Your task to perform on an android device: Open calendar and show me the third week of next month Image 0: 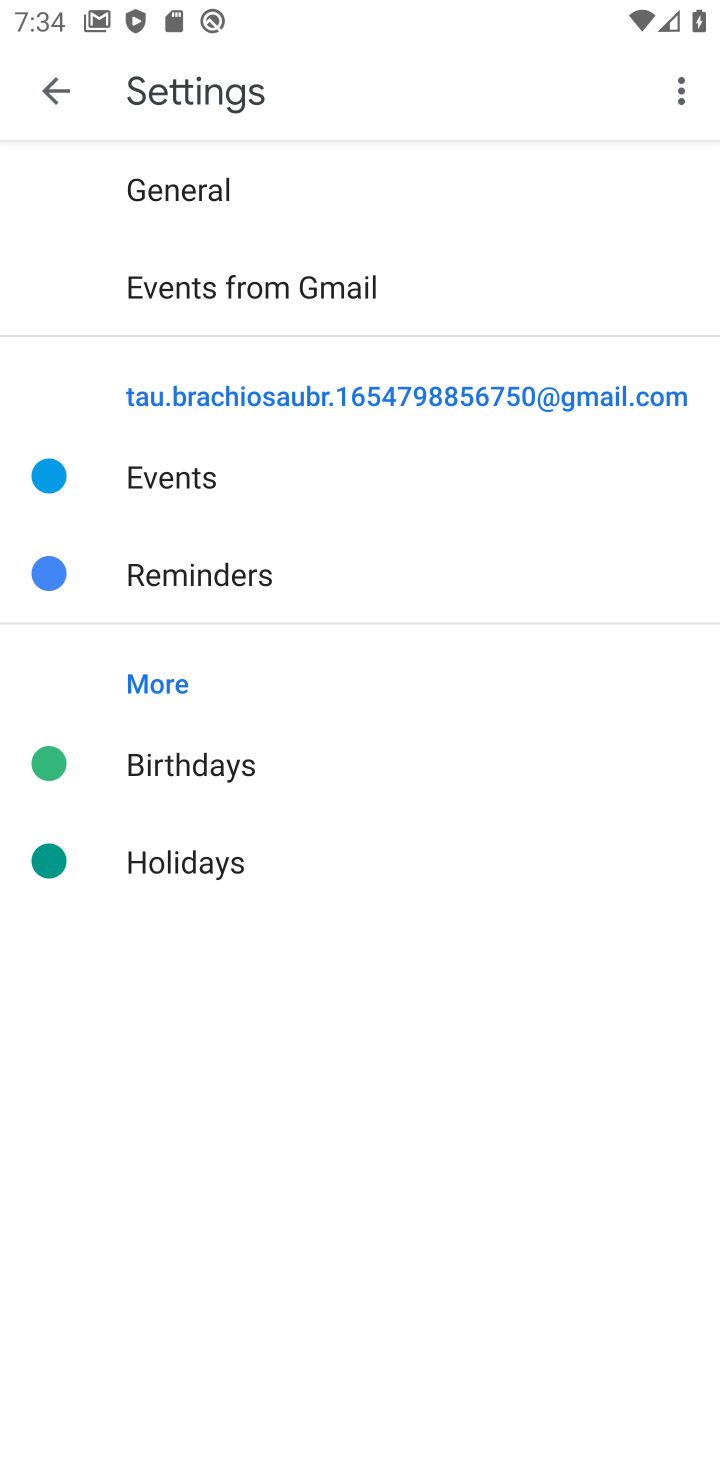
Step 0: press home button
Your task to perform on an android device: Open calendar and show me the third week of next month Image 1: 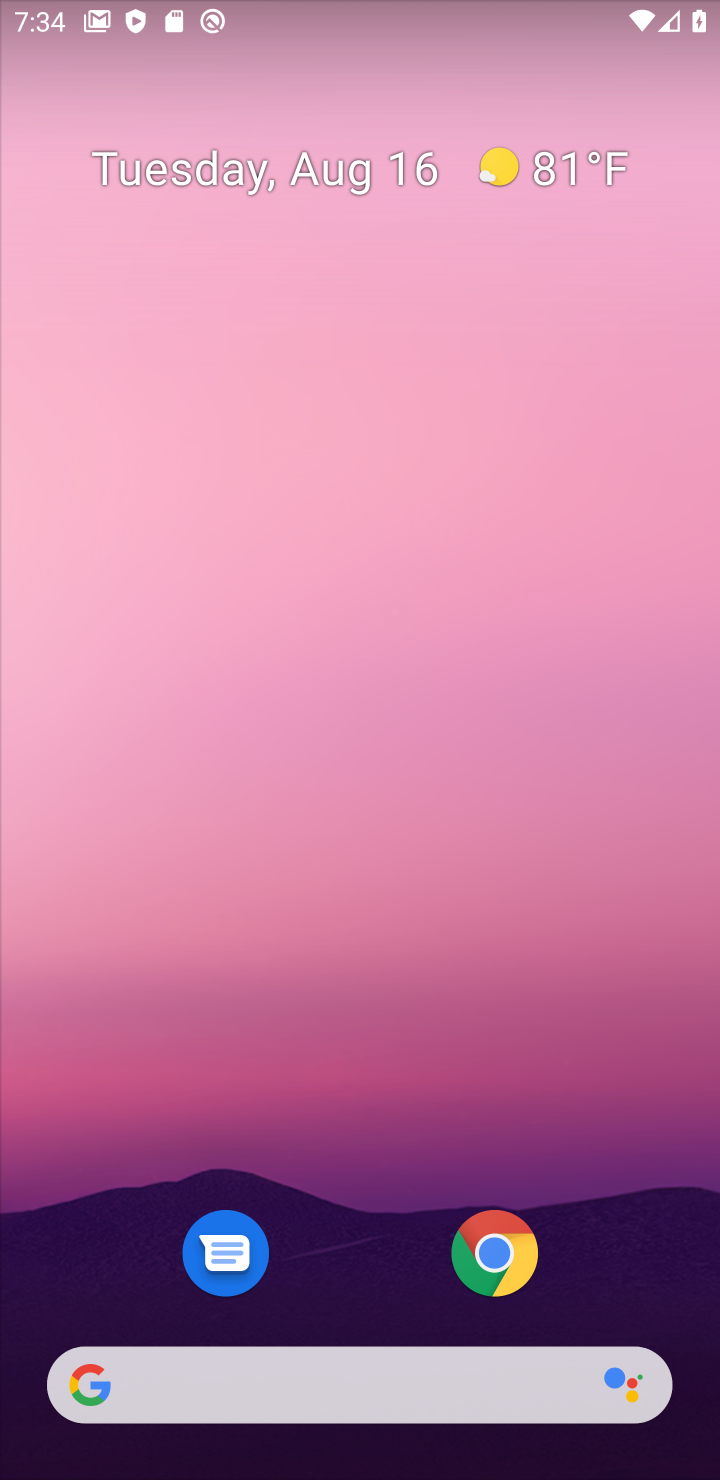
Step 1: drag from (333, 1387) to (442, 203)
Your task to perform on an android device: Open calendar and show me the third week of next month Image 2: 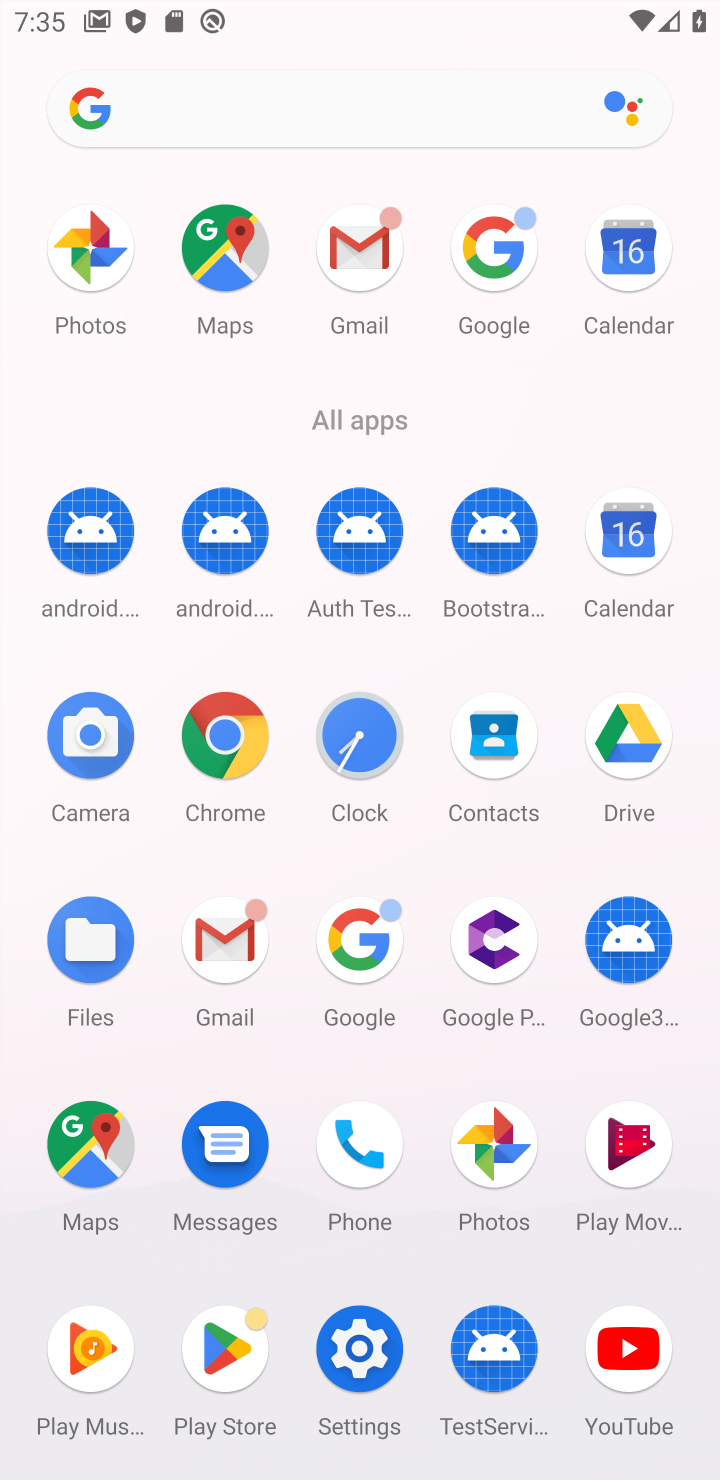
Step 2: click (625, 539)
Your task to perform on an android device: Open calendar and show me the third week of next month Image 3: 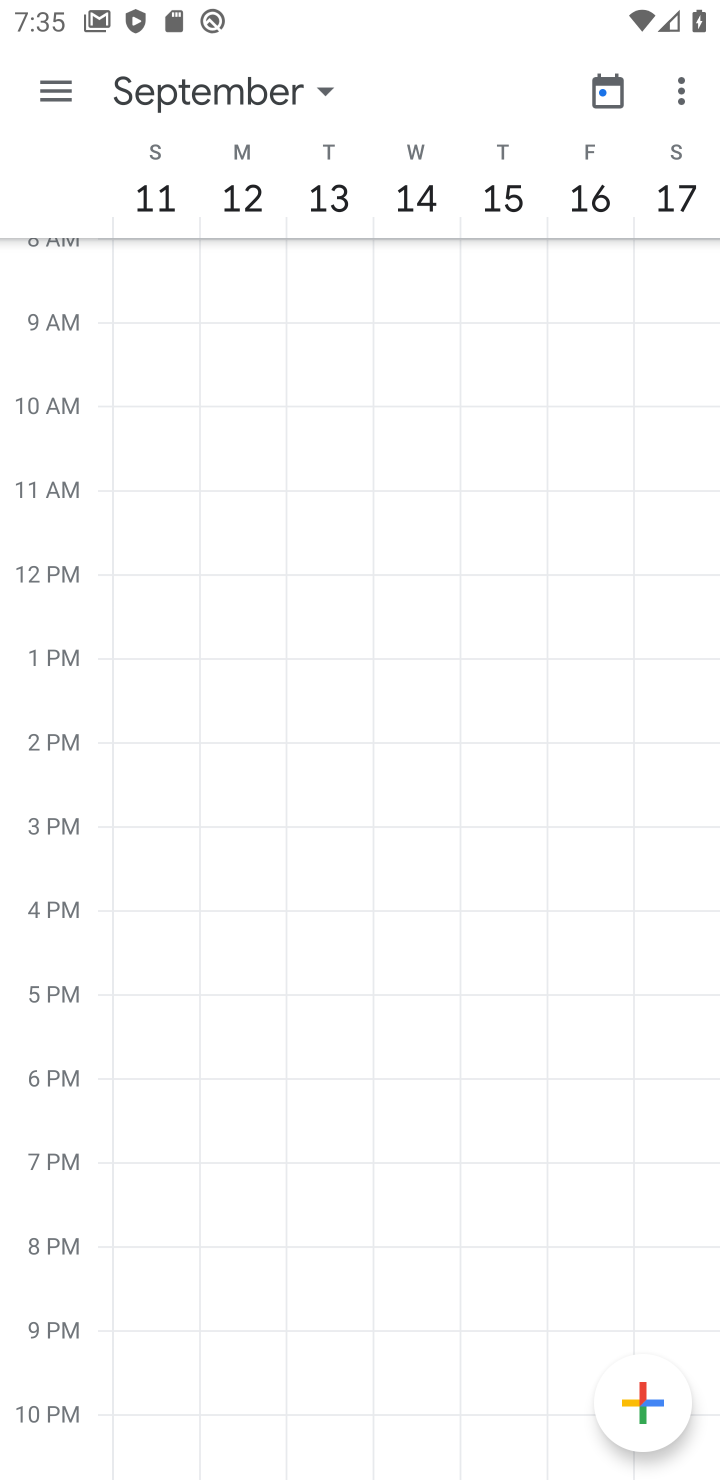
Step 3: click (322, 92)
Your task to perform on an android device: Open calendar and show me the third week of next month Image 4: 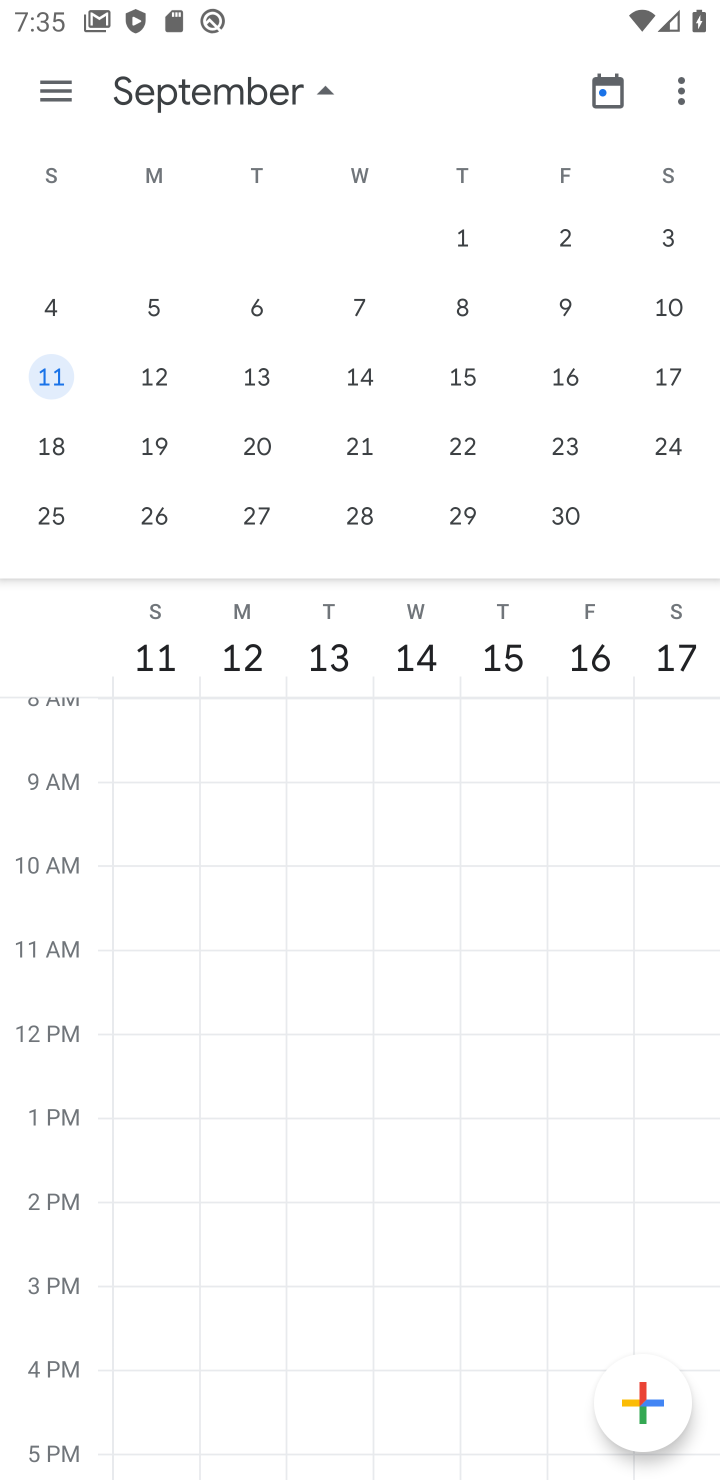
Step 4: click (153, 441)
Your task to perform on an android device: Open calendar and show me the third week of next month Image 5: 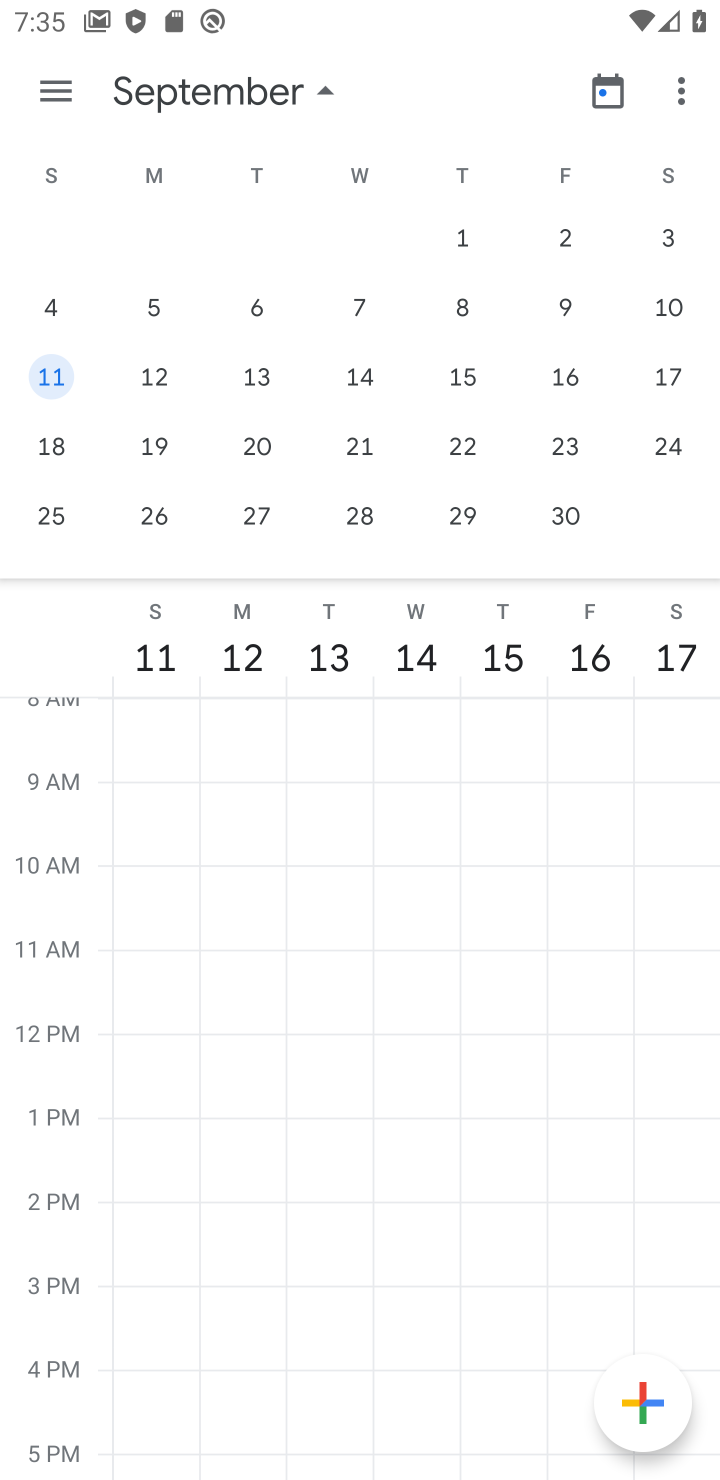
Step 5: click (153, 441)
Your task to perform on an android device: Open calendar and show me the third week of next month Image 6: 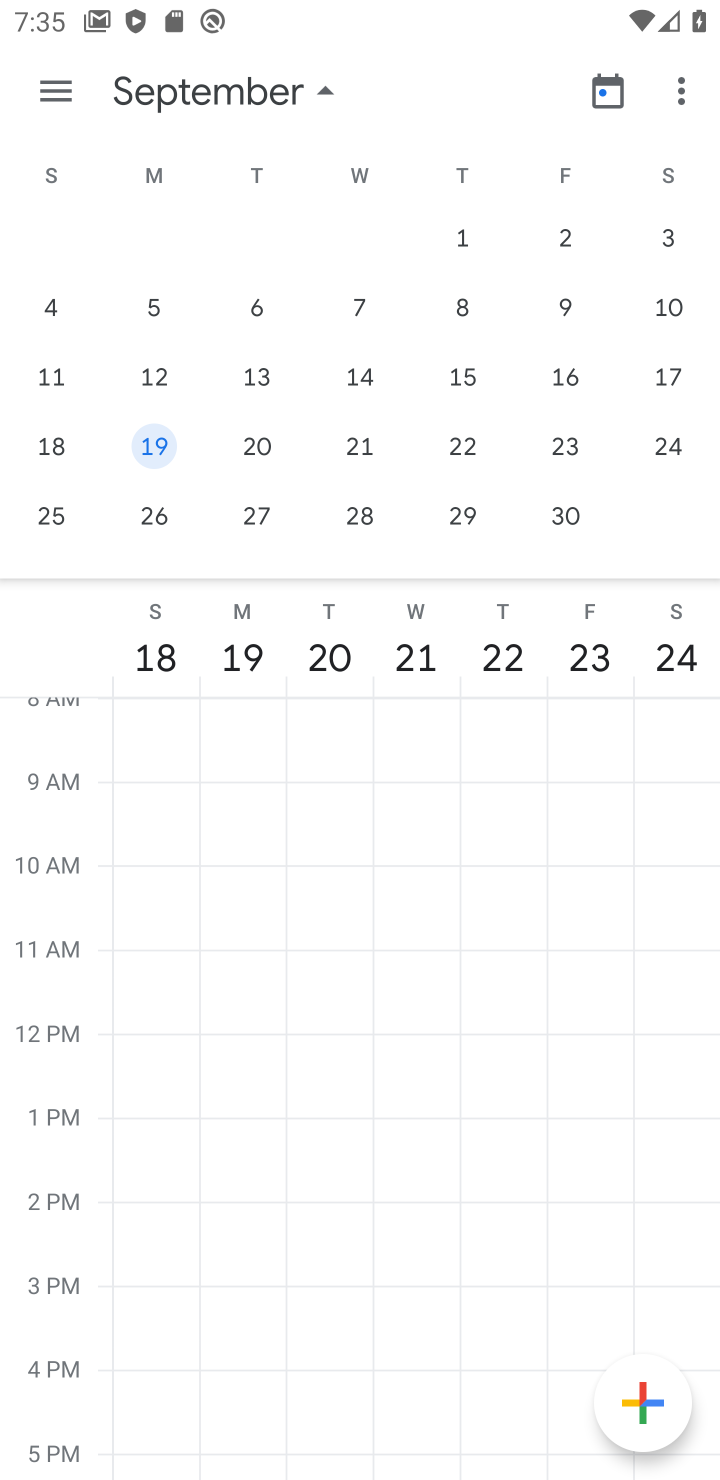
Step 6: click (72, 83)
Your task to perform on an android device: Open calendar and show me the third week of next month Image 7: 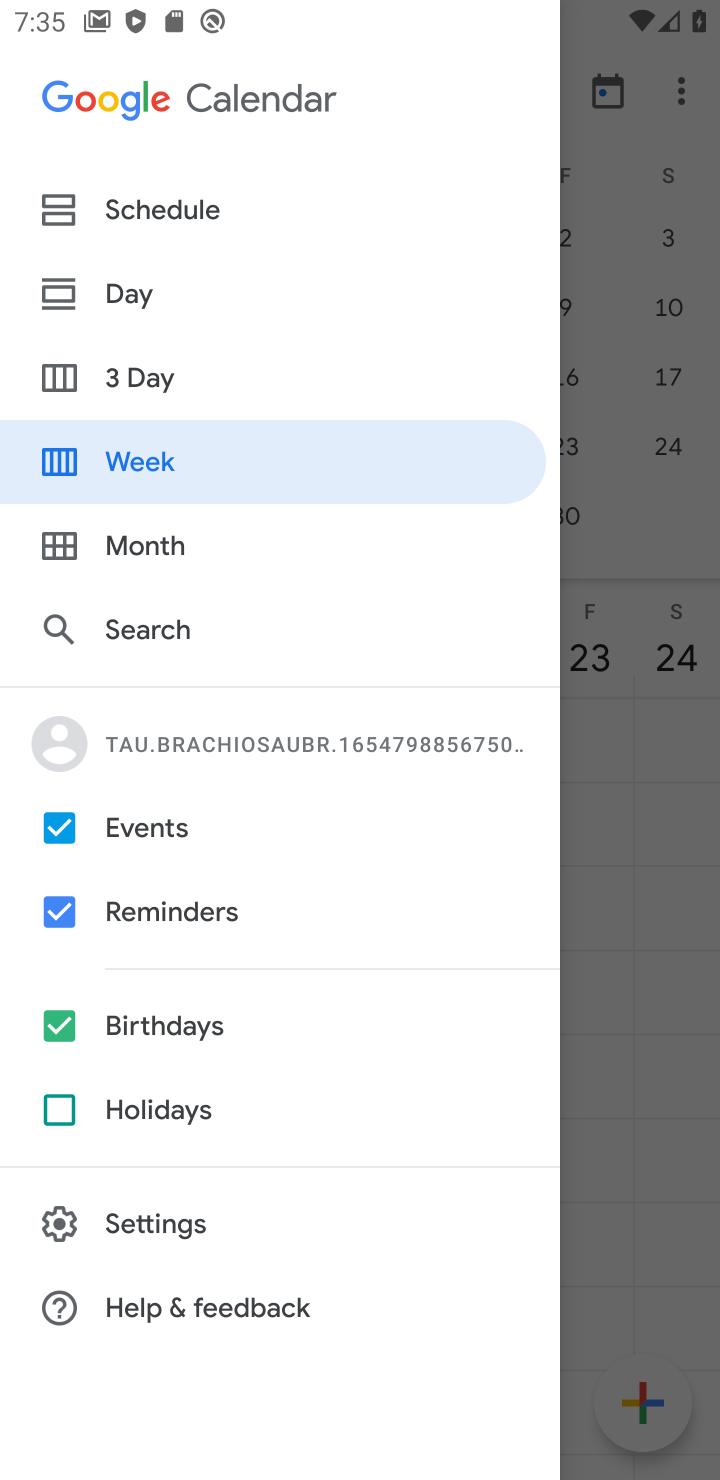
Step 7: click (186, 466)
Your task to perform on an android device: Open calendar and show me the third week of next month Image 8: 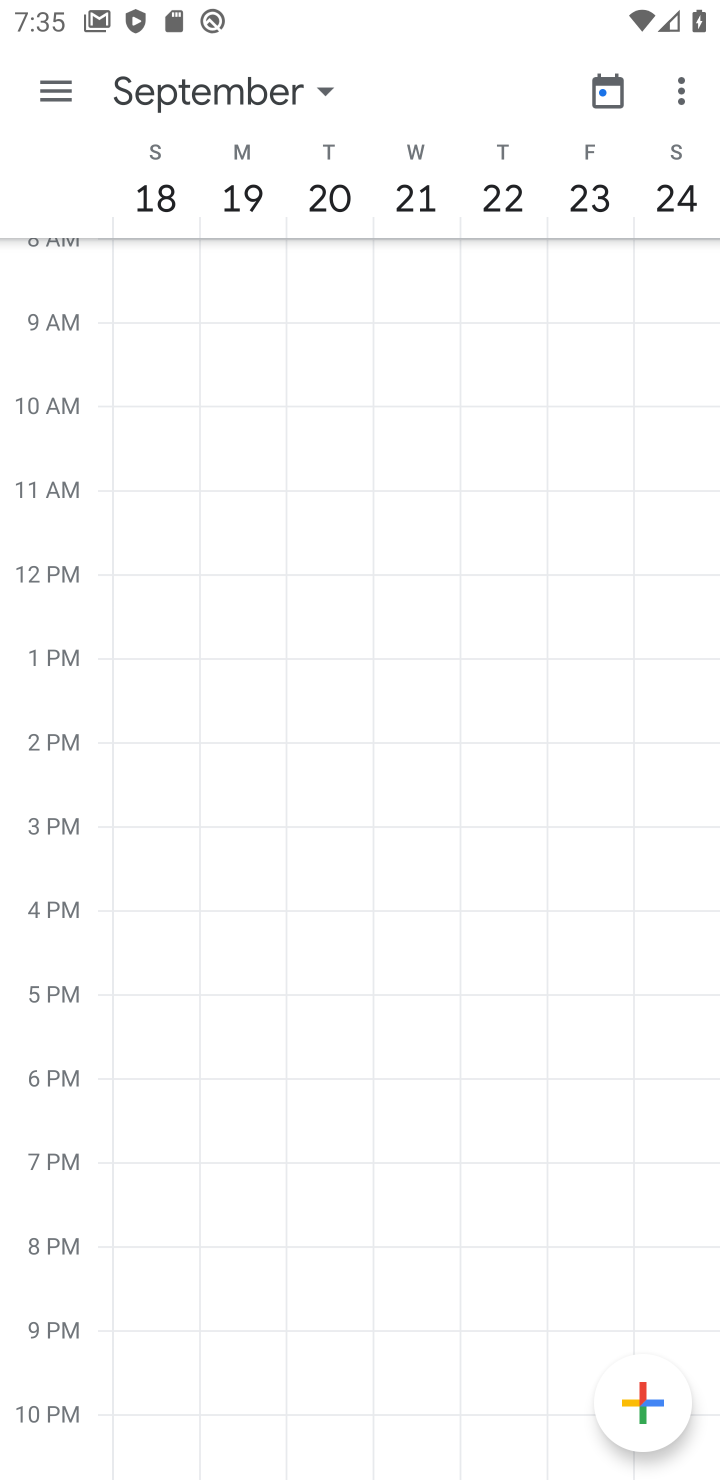
Step 8: task complete